Your task to perform on an android device: Go to Reddit.com Image 0: 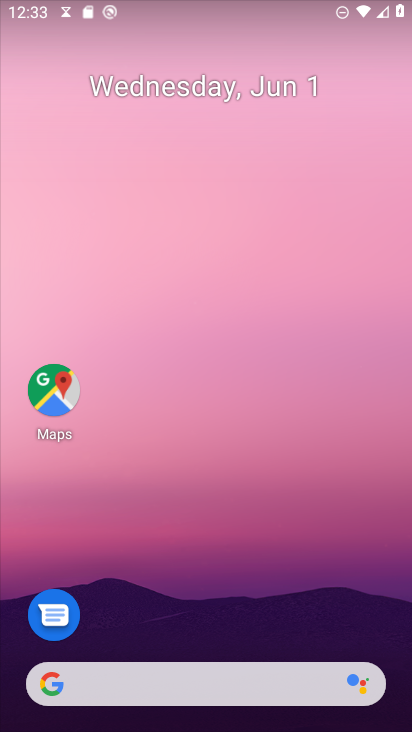
Step 0: drag from (251, 625) to (326, 74)
Your task to perform on an android device: Go to Reddit.com Image 1: 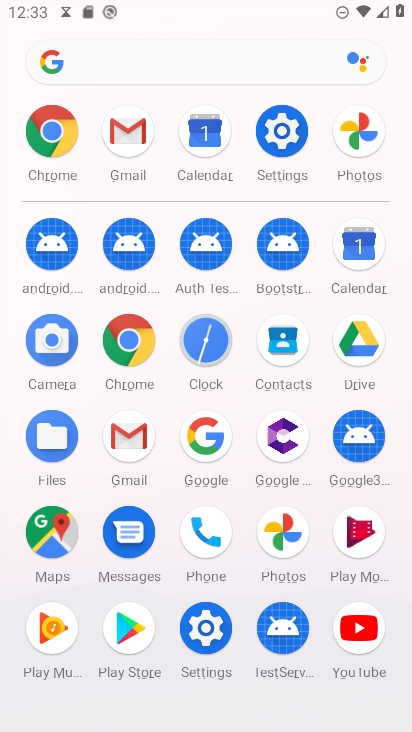
Step 1: click (124, 340)
Your task to perform on an android device: Go to Reddit.com Image 2: 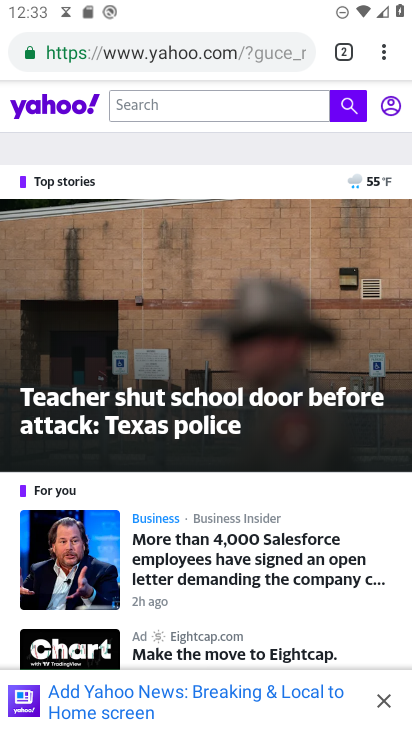
Step 2: click (306, 51)
Your task to perform on an android device: Go to Reddit.com Image 3: 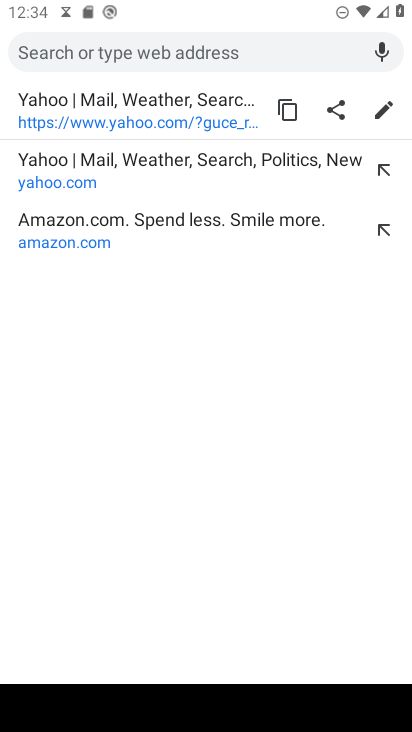
Step 3: type "reddit.com"
Your task to perform on an android device: Go to Reddit.com Image 4: 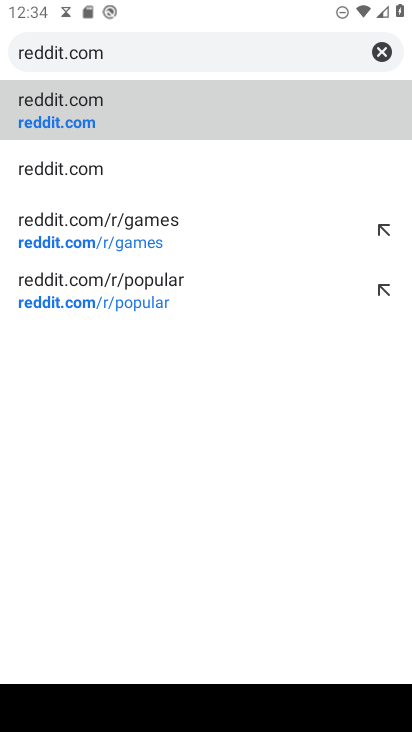
Step 4: click (125, 110)
Your task to perform on an android device: Go to Reddit.com Image 5: 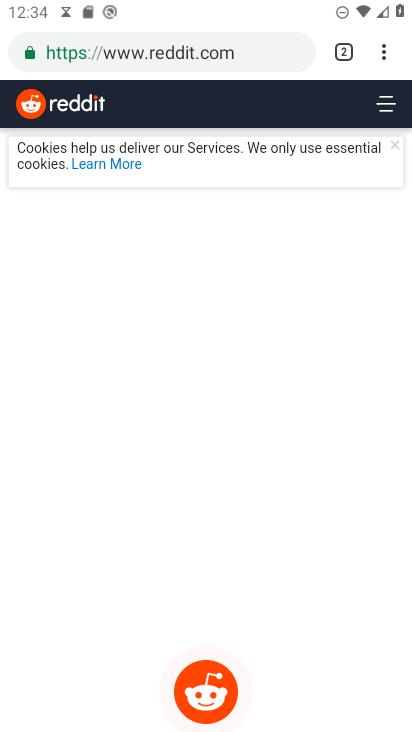
Step 5: click (393, 143)
Your task to perform on an android device: Go to Reddit.com Image 6: 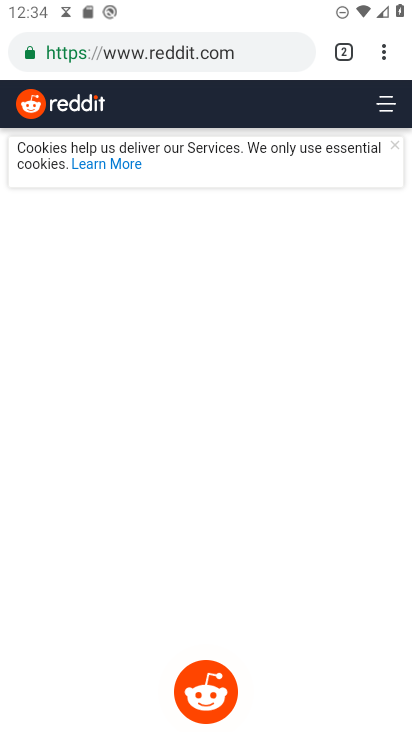
Step 6: task complete